Your task to perform on an android device: Open Google Maps and go to "Timeline" Image 0: 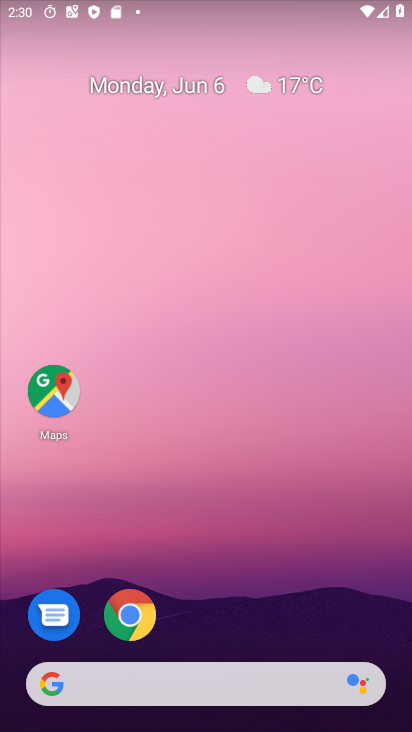
Step 0: drag from (206, 649) to (207, 136)
Your task to perform on an android device: Open Google Maps and go to "Timeline" Image 1: 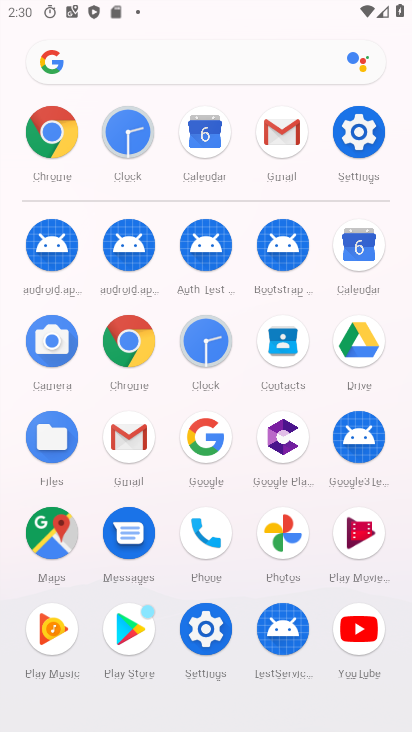
Step 1: click (50, 531)
Your task to perform on an android device: Open Google Maps and go to "Timeline" Image 2: 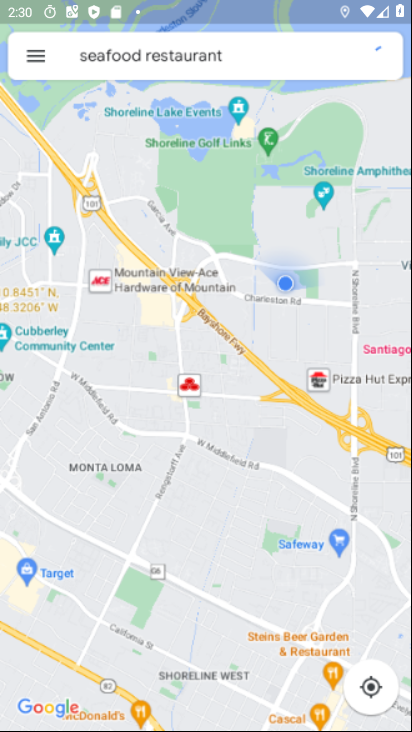
Step 2: click (19, 51)
Your task to perform on an android device: Open Google Maps and go to "Timeline" Image 3: 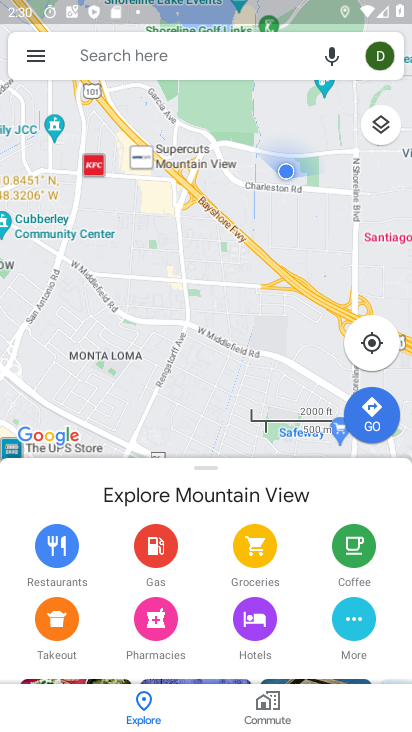
Step 3: click (44, 62)
Your task to perform on an android device: Open Google Maps and go to "Timeline" Image 4: 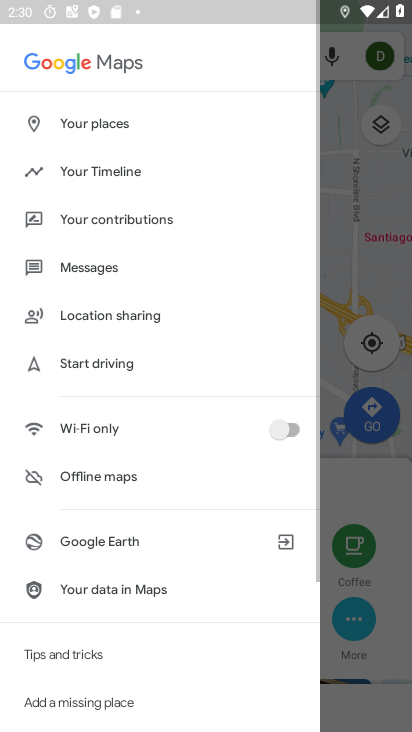
Step 4: click (121, 169)
Your task to perform on an android device: Open Google Maps and go to "Timeline" Image 5: 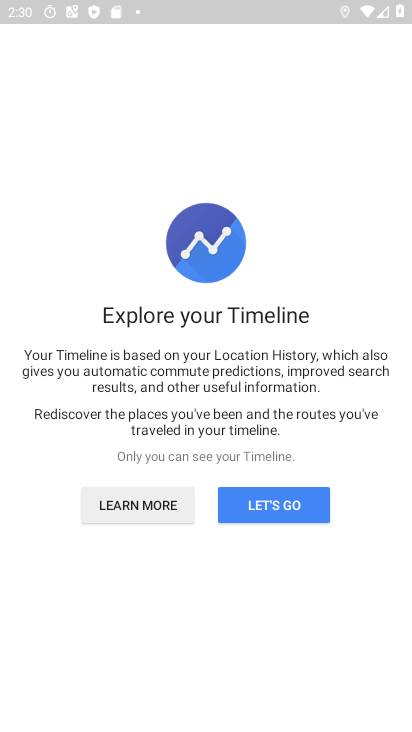
Step 5: drag from (200, 430) to (231, 173)
Your task to perform on an android device: Open Google Maps and go to "Timeline" Image 6: 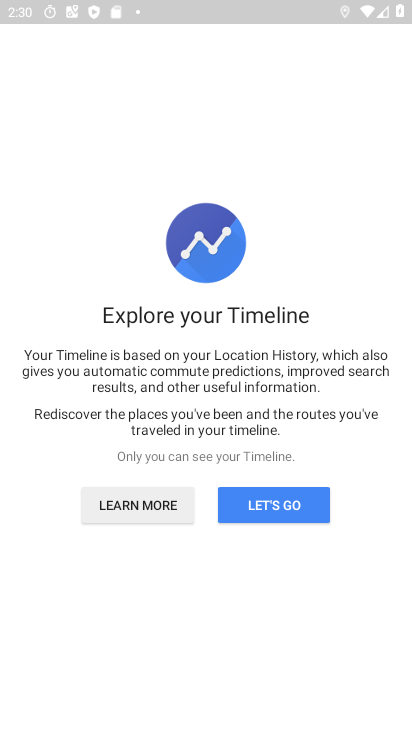
Step 6: click (278, 497)
Your task to perform on an android device: Open Google Maps and go to "Timeline" Image 7: 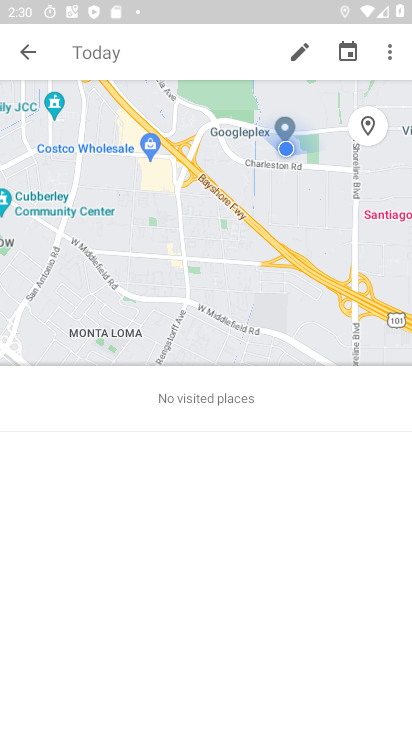
Step 7: task complete